Your task to perform on an android device: Find coffee shops on Maps Image 0: 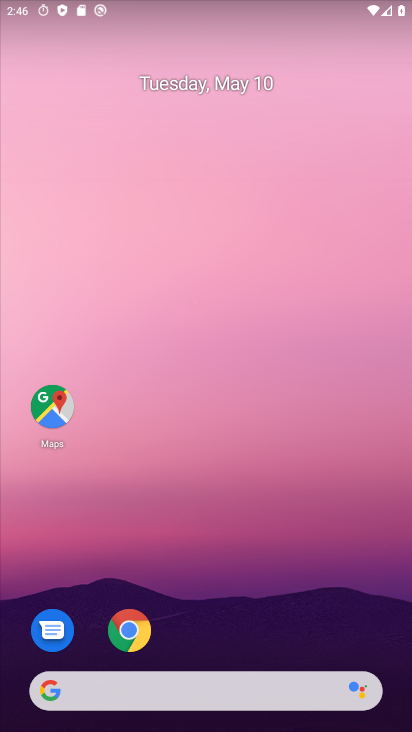
Step 0: click (54, 388)
Your task to perform on an android device: Find coffee shops on Maps Image 1: 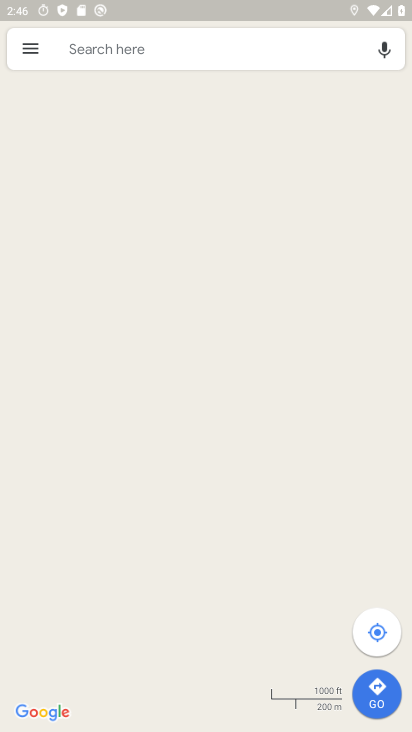
Step 1: click (148, 42)
Your task to perform on an android device: Find coffee shops on Maps Image 2: 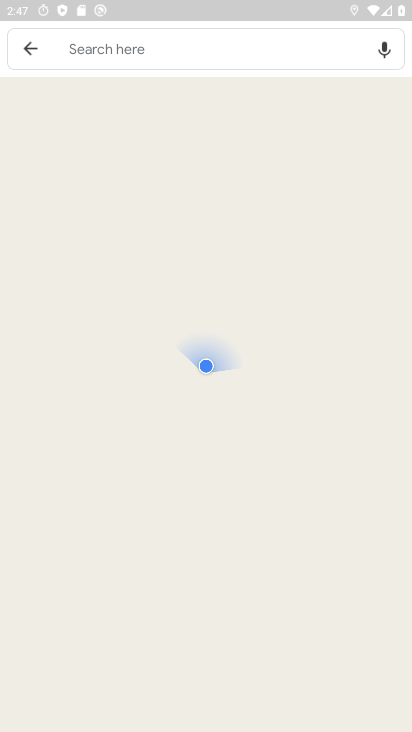
Step 2: click (148, 42)
Your task to perform on an android device: Find coffee shops on Maps Image 3: 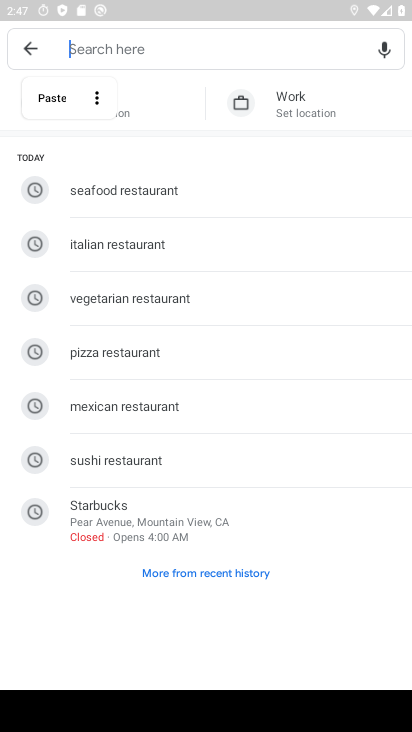
Step 3: type "coffee shops"
Your task to perform on an android device: Find coffee shops on Maps Image 4: 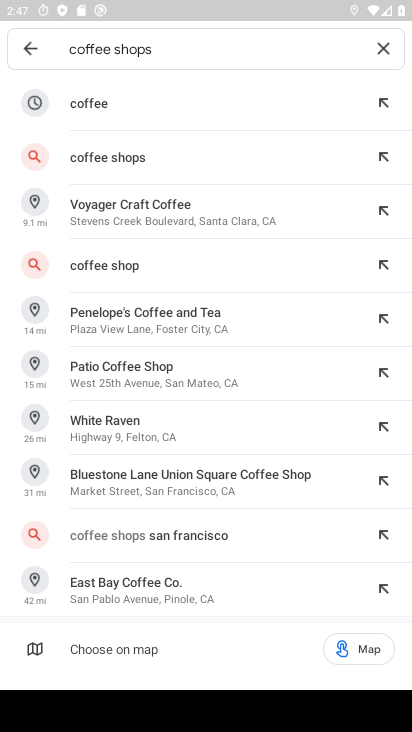
Step 4: click (144, 156)
Your task to perform on an android device: Find coffee shops on Maps Image 5: 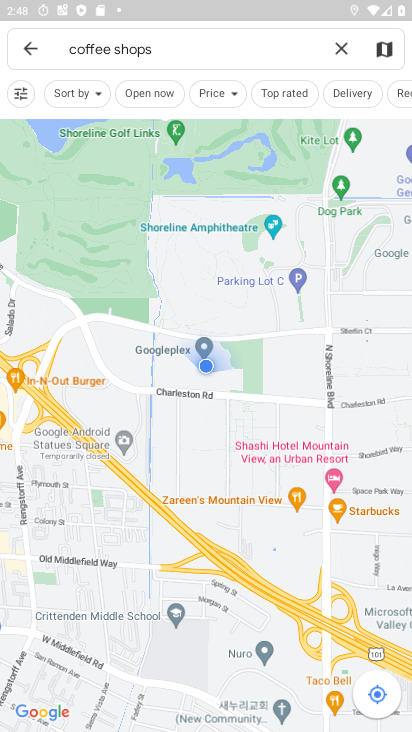
Step 5: task complete